Your task to perform on an android device: Go to sound settings Image 0: 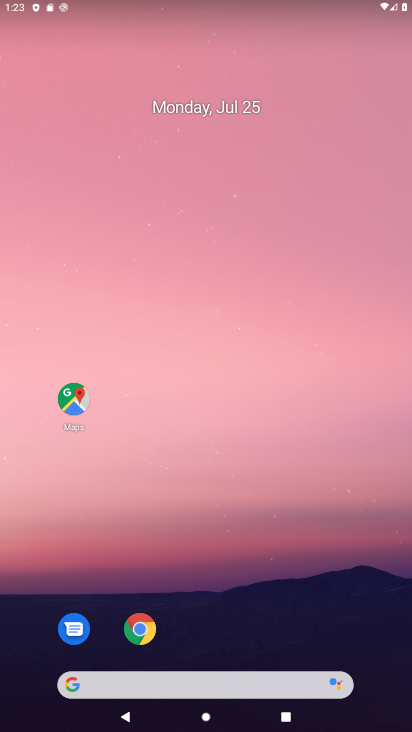
Step 0: drag from (188, 457) to (210, 248)
Your task to perform on an android device: Go to sound settings Image 1: 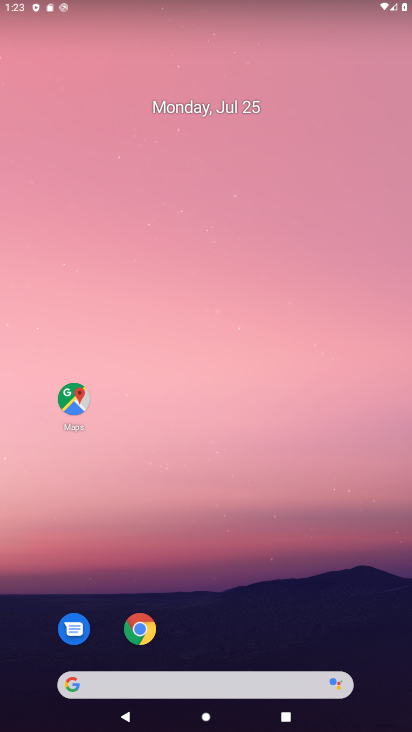
Step 1: drag from (166, 643) to (223, 92)
Your task to perform on an android device: Go to sound settings Image 2: 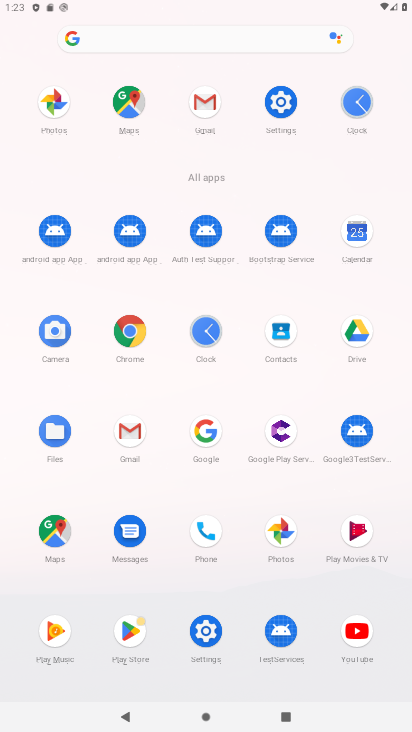
Step 2: click (203, 627)
Your task to perform on an android device: Go to sound settings Image 3: 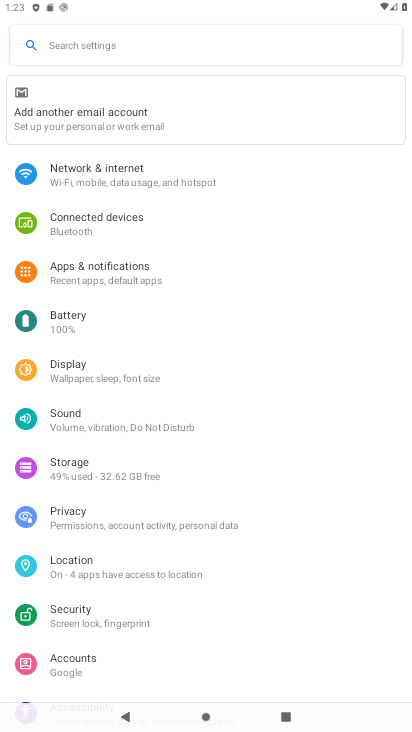
Step 3: click (105, 426)
Your task to perform on an android device: Go to sound settings Image 4: 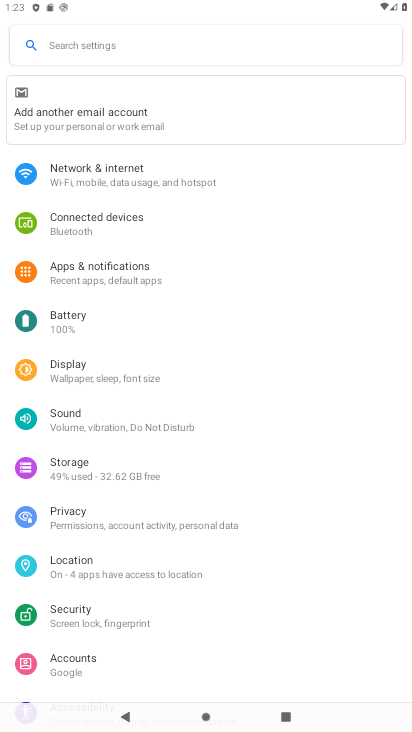
Step 4: click (105, 426)
Your task to perform on an android device: Go to sound settings Image 5: 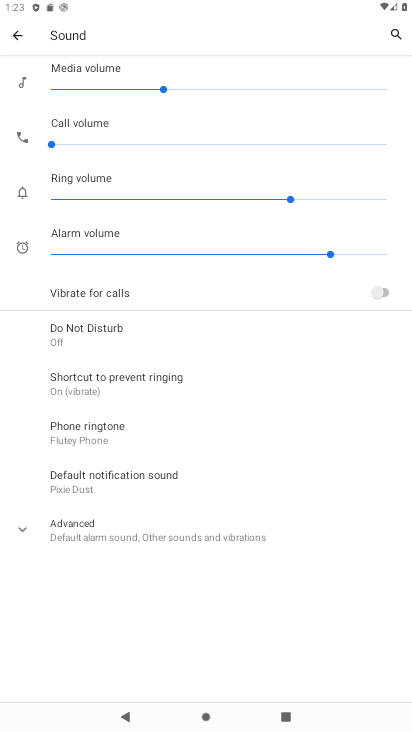
Step 5: task complete